Your task to perform on an android device: toggle airplane mode Image 0: 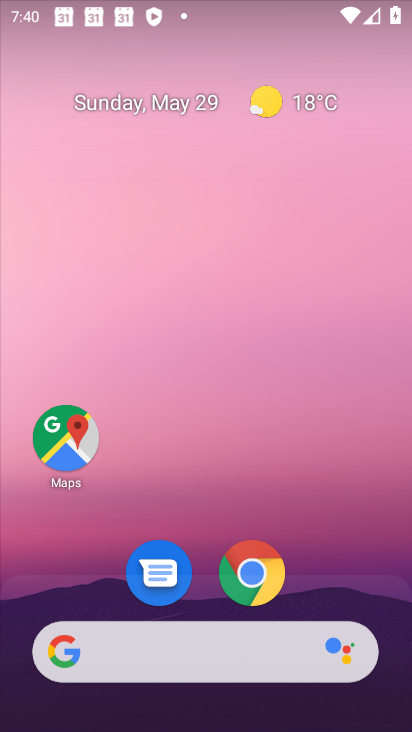
Step 0: drag from (88, 636) to (256, 87)
Your task to perform on an android device: toggle airplane mode Image 1: 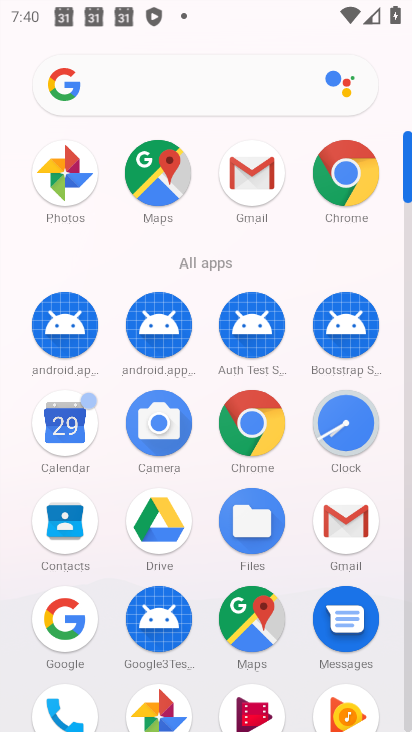
Step 1: drag from (160, 607) to (226, 371)
Your task to perform on an android device: toggle airplane mode Image 2: 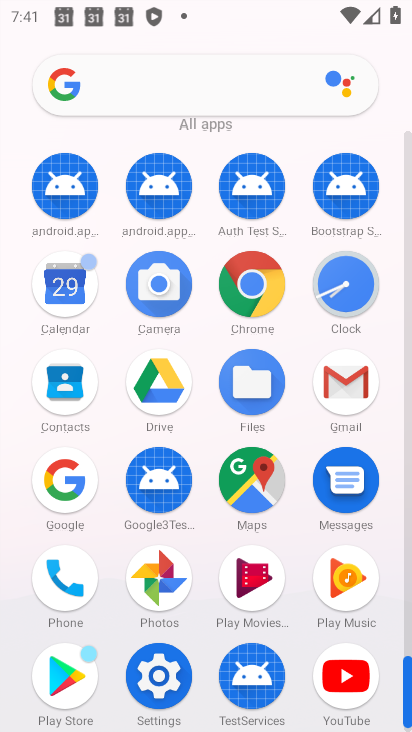
Step 2: click (161, 676)
Your task to perform on an android device: toggle airplane mode Image 3: 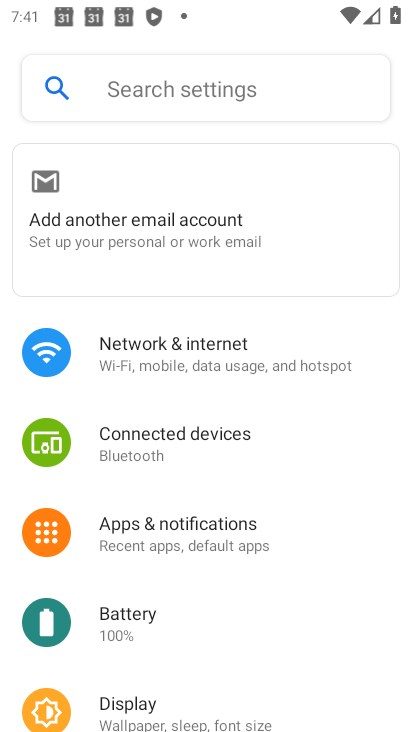
Step 3: click (244, 374)
Your task to perform on an android device: toggle airplane mode Image 4: 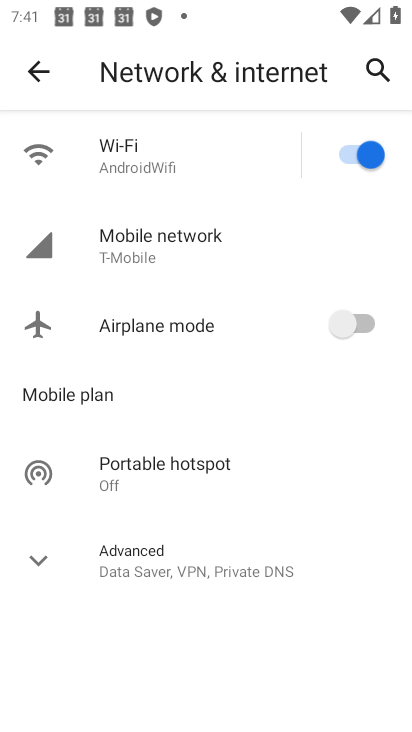
Step 4: click (385, 319)
Your task to perform on an android device: toggle airplane mode Image 5: 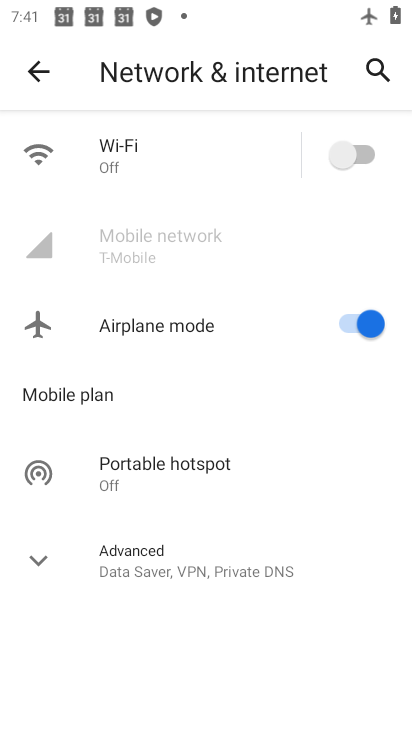
Step 5: task complete